Your task to perform on an android device: Search for a 24-inch cordless drill. Image 0: 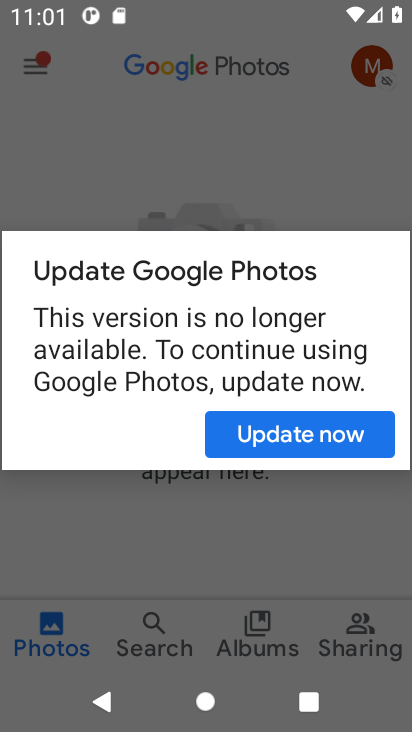
Step 0: press home button
Your task to perform on an android device: Search for a 24-inch cordless drill. Image 1: 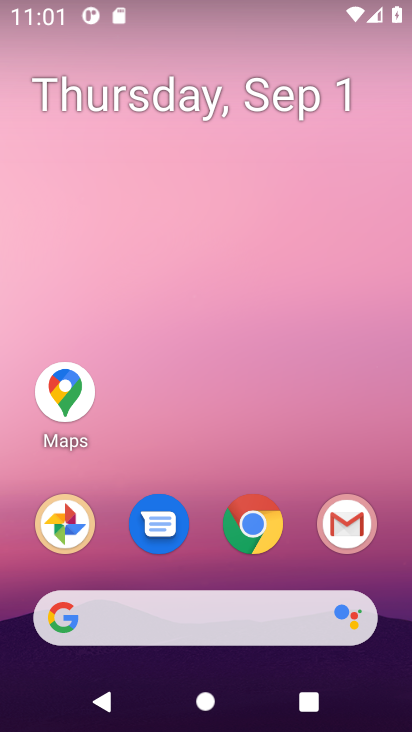
Step 1: click (210, 625)
Your task to perform on an android device: Search for a 24-inch cordless drill. Image 2: 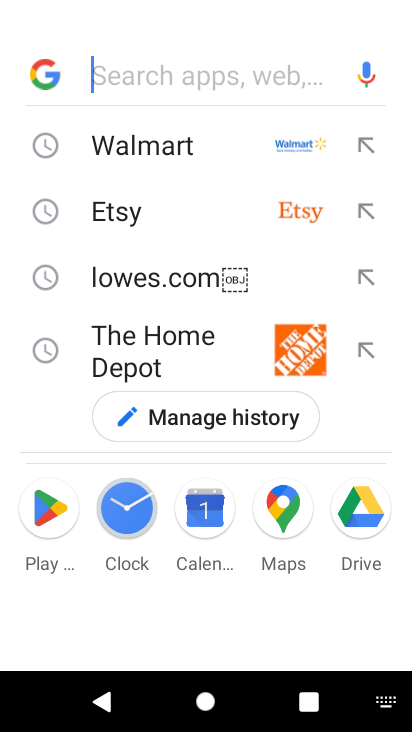
Step 2: press enter
Your task to perform on an android device: Search for a 24-inch cordless drill. Image 3: 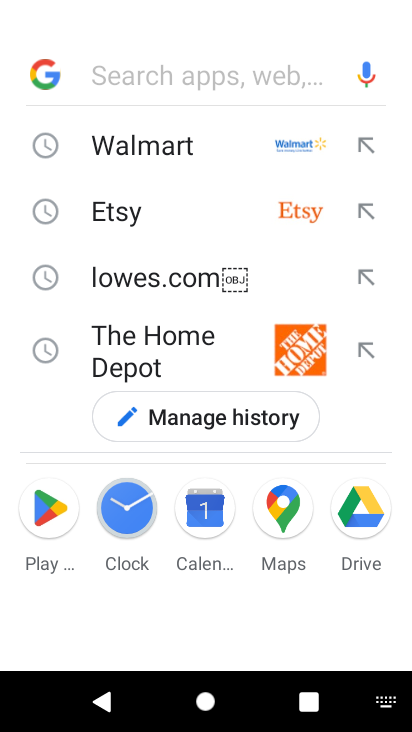
Step 3: type "24-inch cordless drill"
Your task to perform on an android device: Search for a 24-inch cordless drill. Image 4: 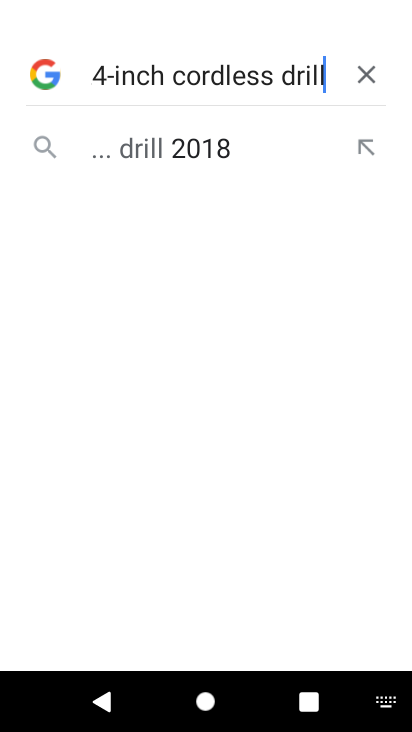
Step 4: task complete